Your task to perform on an android device: see tabs open on other devices in the chrome app Image 0: 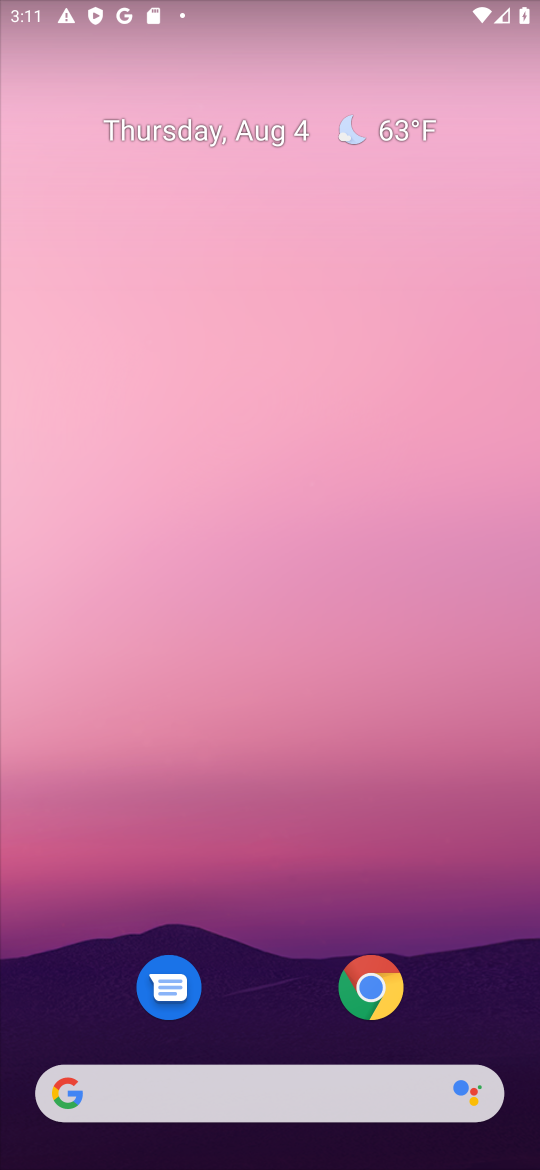
Step 0: click (375, 988)
Your task to perform on an android device: see tabs open on other devices in the chrome app Image 1: 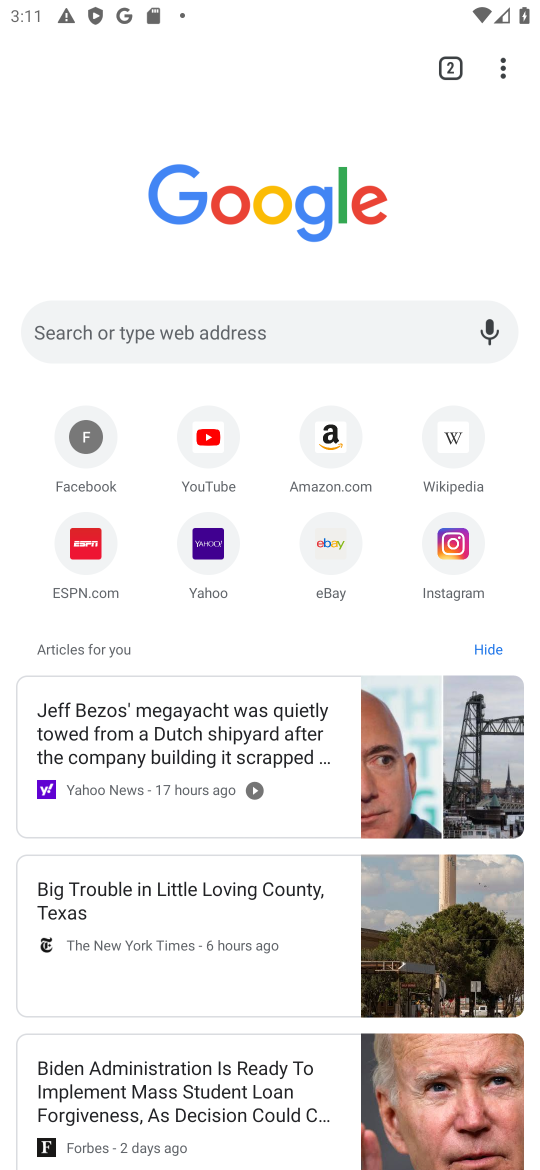
Step 1: click (498, 70)
Your task to perform on an android device: see tabs open on other devices in the chrome app Image 2: 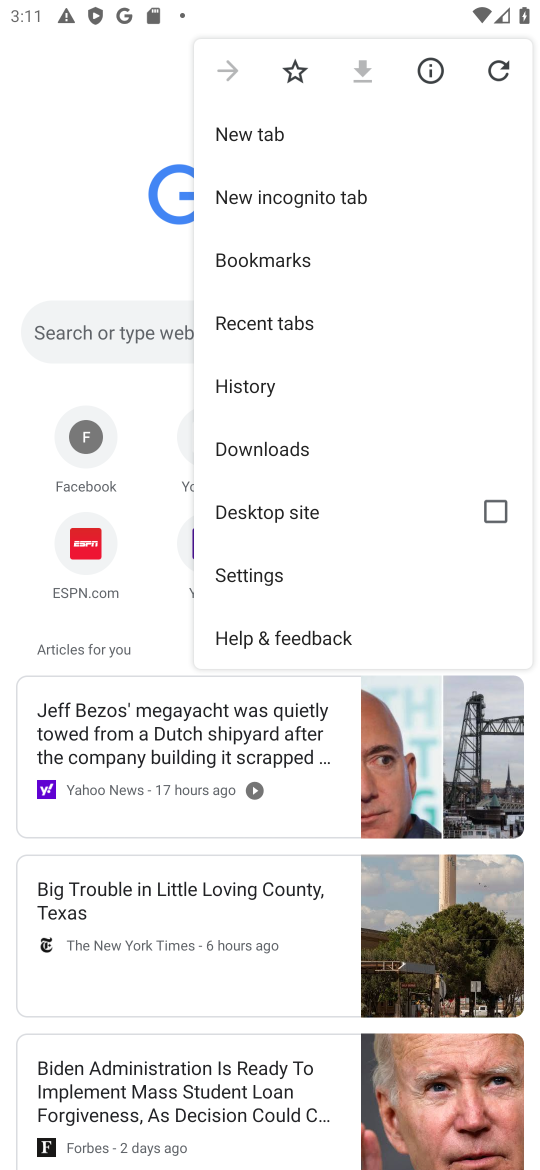
Step 2: click (249, 319)
Your task to perform on an android device: see tabs open on other devices in the chrome app Image 3: 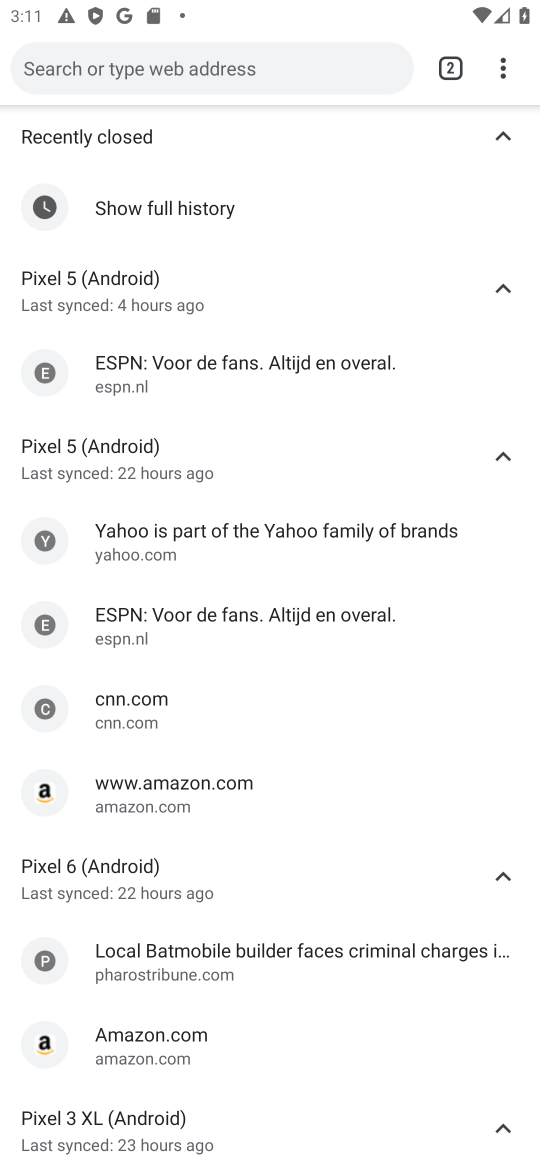
Step 3: task complete